Your task to perform on an android device: Turn off the flashlight Image 0: 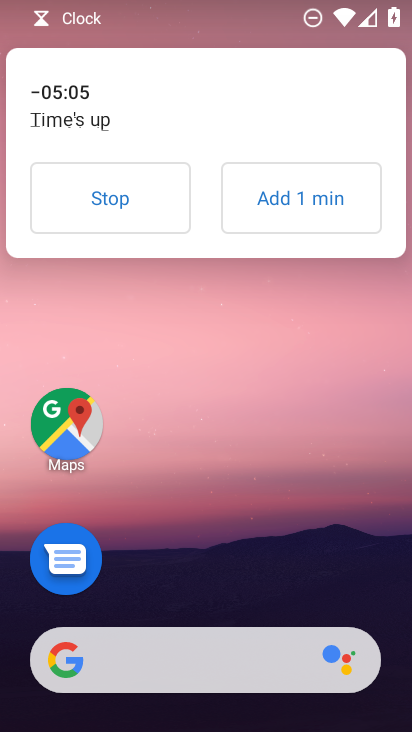
Step 0: click (136, 203)
Your task to perform on an android device: Turn off the flashlight Image 1: 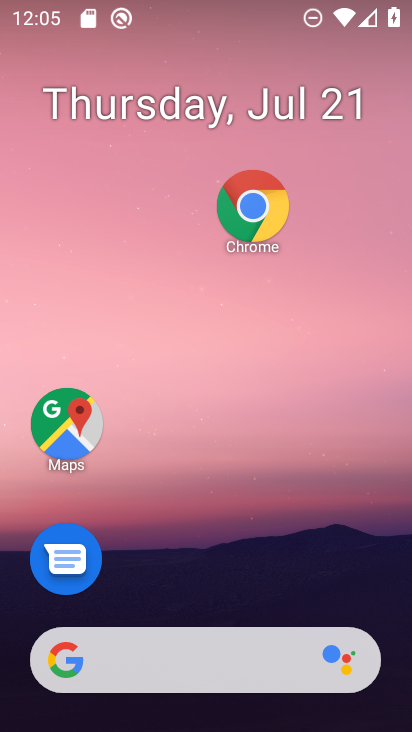
Step 1: task complete